Your task to perform on an android device: turn off data saver in the chrome app Image 0: 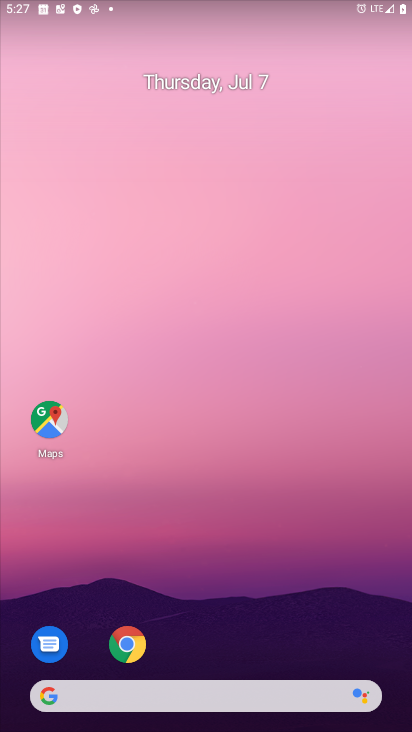
Step 0: drag from (212, 636) to (247, 190)
Your task to perform on an android device: turn off data saver in the chrome app Image 1: 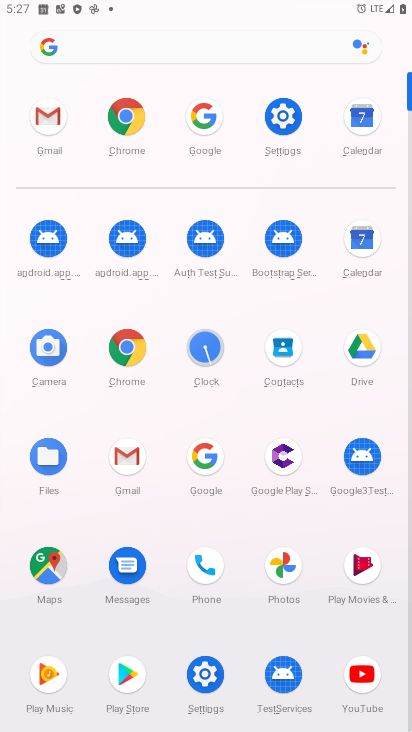
Step 1: click (123, 117)
Your task to perform on an android device: turn off data saver in the chrome app Image 2: 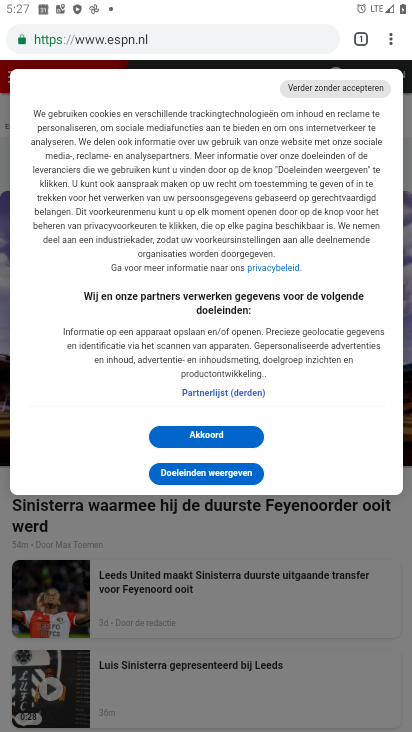
Step 2: click (390, 35)
Your task to perform on an android device: turn off data saver in the chrome app Image 3: 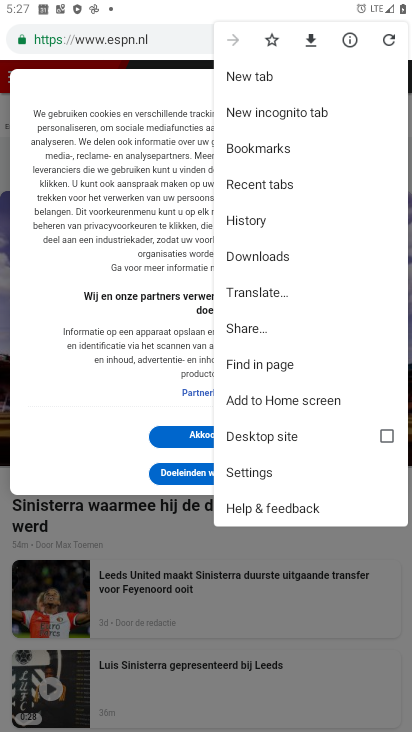
Step 3: click (267, 474)
Your task to perform on an android device: turn off data saver in the chrome app Image 4: 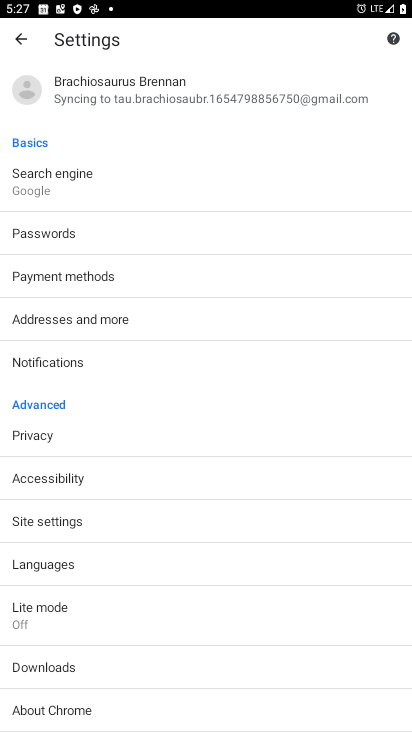
Step 4: click (67, 606)
Your task to perform on an android device: turn off data saver in the chrome app Image 5: 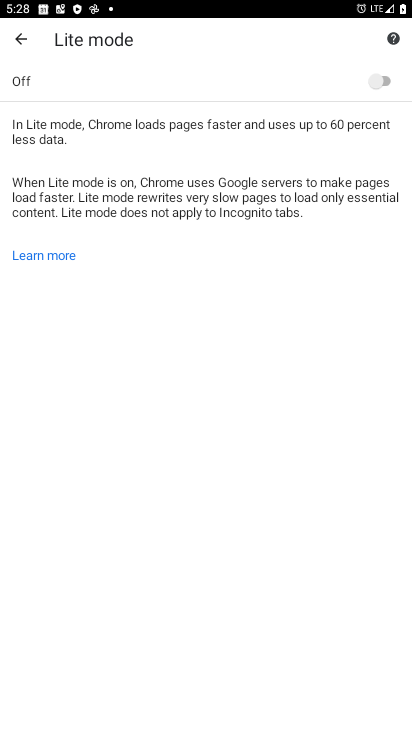
Step 5: task complete